Your task to perform on an android device: turn on data saver in the chrome app Image 0: 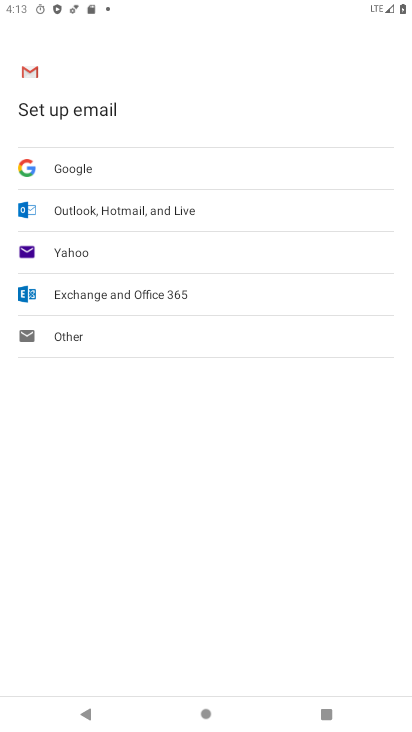
Step 0: press home button
Your task to perform on an android device: turn on data saver in the chrome app Image 1: 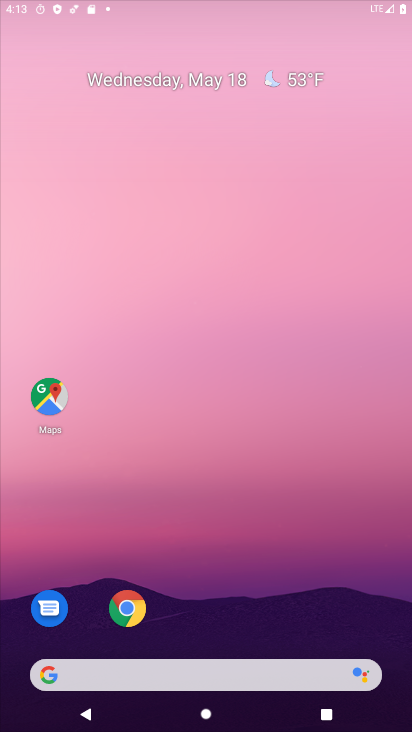
Step 1: drag from (275, 660) to (344, 23)
Your task to perform on an android device: turn on data saver in the chrome app Image 2: 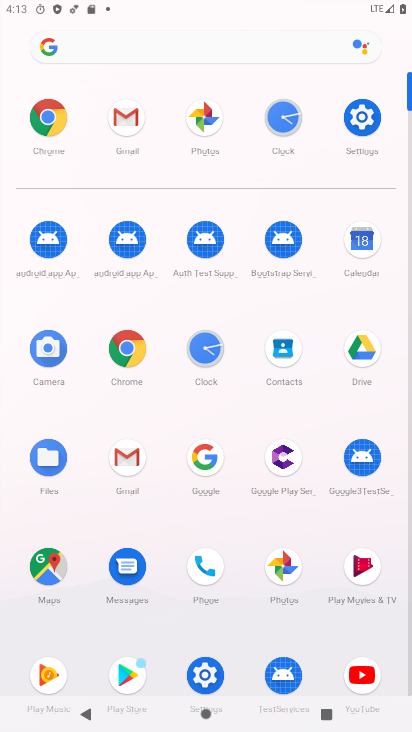
Step 2: click (118, 362)
Your task to perform on an android device: turn on data saver in the chrome app Image 3: 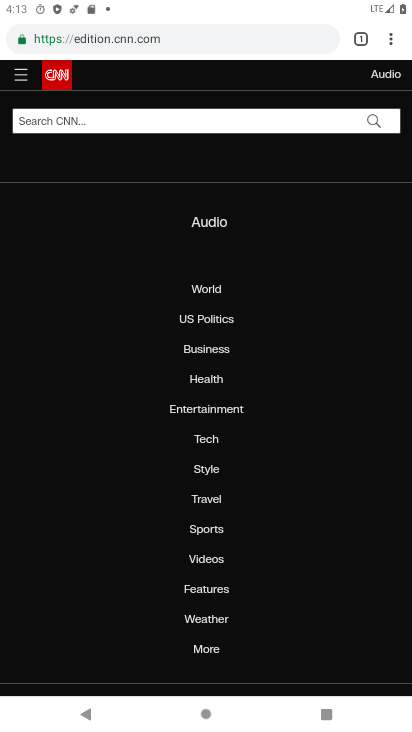
Step 3: click (388, 33)
Your task to perform on an android device: turn on data saver in the chrome app Image 4: 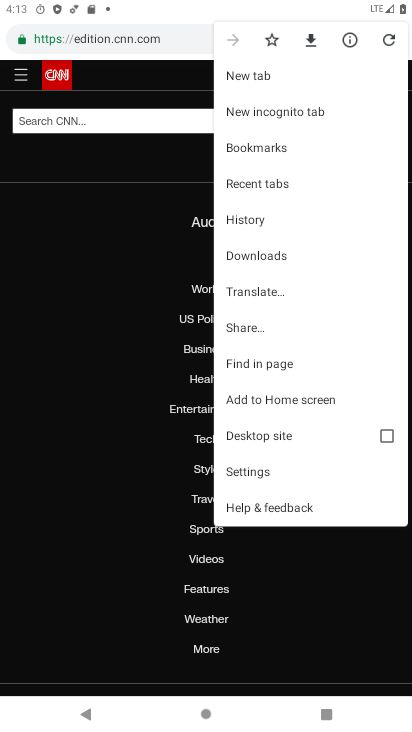
Step 4: click (277, 469)
Your task to perform on an android device: turn on data saver in the chrome app Image 5: 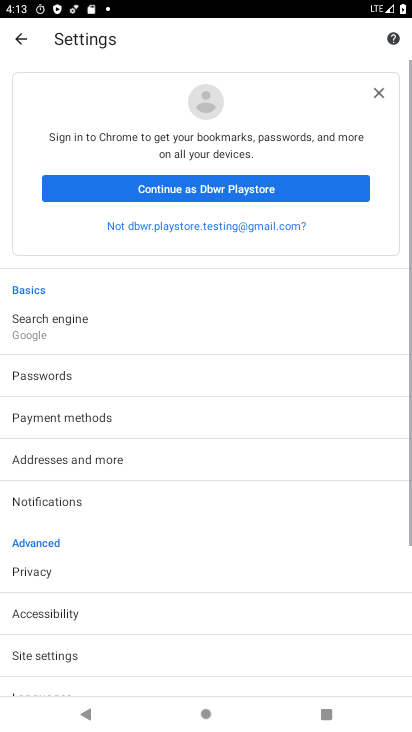
Step 5: drag from (270, 634) to (300, 128)
Your task to perform on an android device: turn on data saver in the chrome app Image 6: 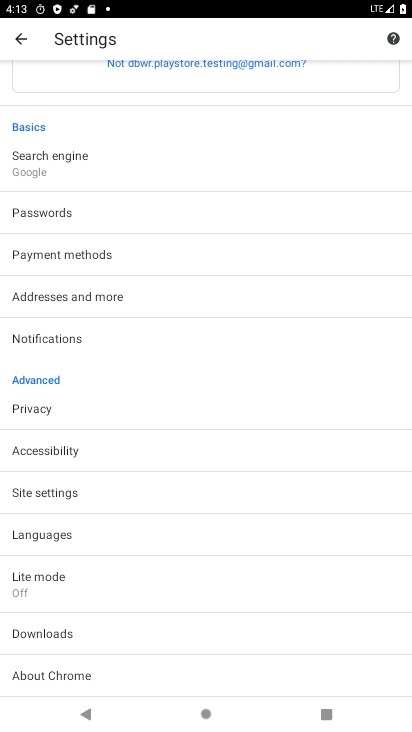
Step 6: click (76, 587)
Your task to perform on an android device: turn on data saver in the chrome app Image 7: 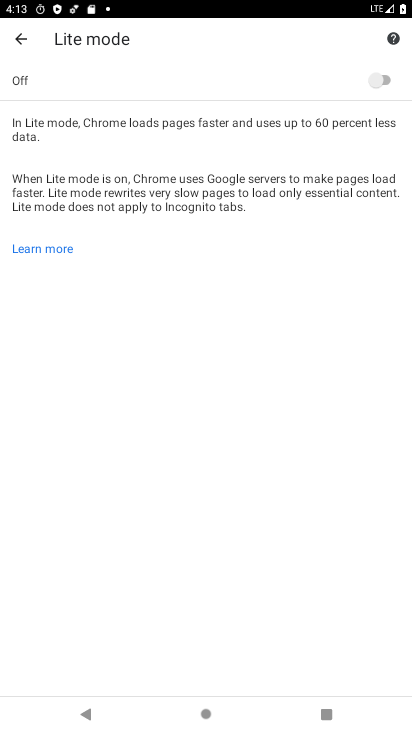
Step 7: click (389, 80)
Your task to perform on an android device: turn on data saver in the chrome app Image 8: 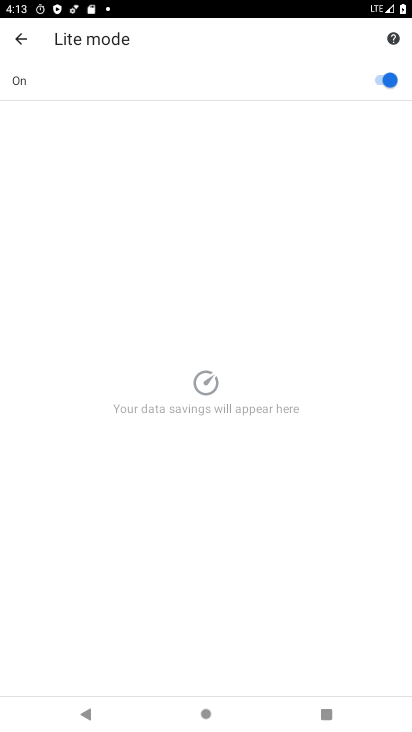
Step 8: task complete